Your task to perform on an android device: choose inbox layout in the gmail app Image 0: 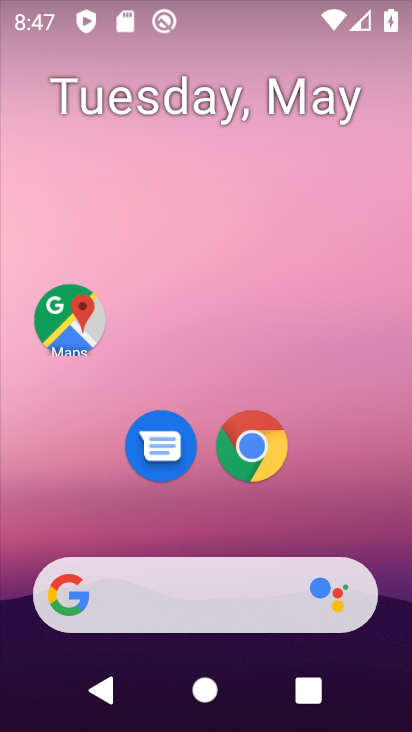
Step 0: drag from (385, 529) to (385, 208)
Your task to perform on an android device: choose inbox layout in the gmail app Image 1: 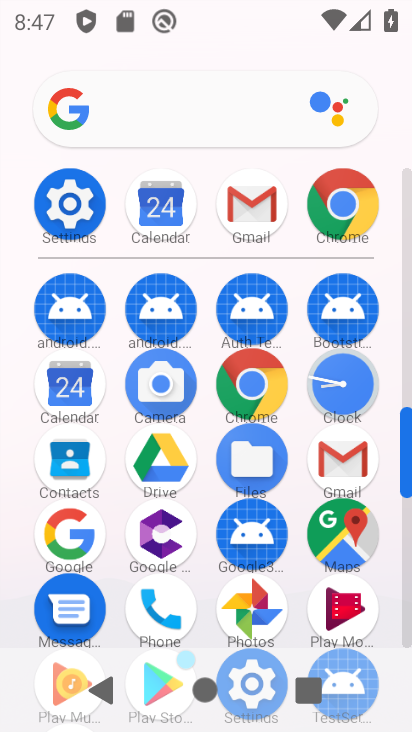
Step 1: click (358, 465)
Your task to perform on an android device: choose inbox layout in the gmail app Image 2: 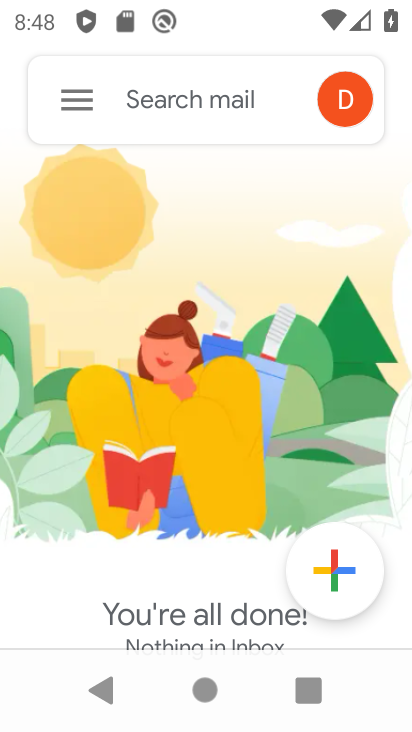
Step 2: click (75, 99)
Your task to perform on an android device: choose inbox layout in the gmail app Image 3: 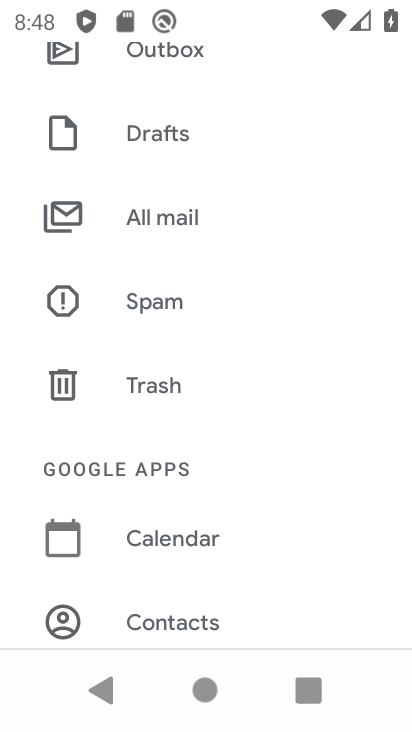
Step 3: drag from (279, 437) to (285, 352)
Your task to perform on an android device: choose inbox layout in the gmail app Image 4: 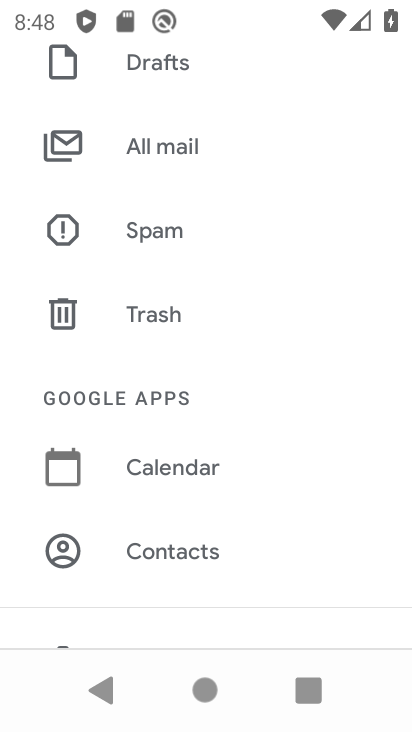
Step 4: drag from (323, 510) to (331, 402)
Your task to perform on an android device: choose inbox layout in the gmail app Image 5: 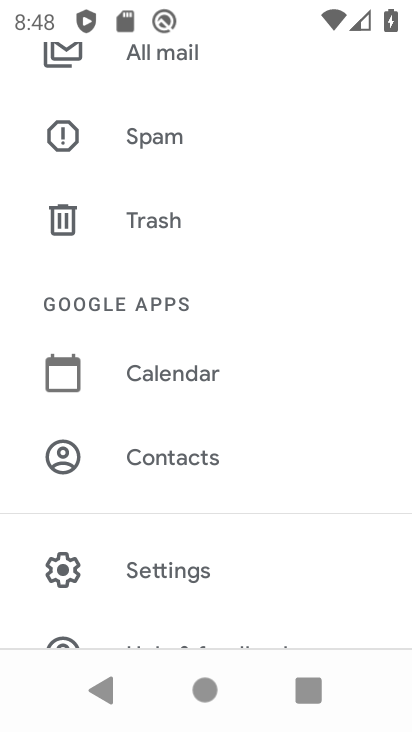
Step 5: drag from (316, 516) to (329, 398)
Your task to perform on an android device: choose inbox layout in the gmail app Image 6: 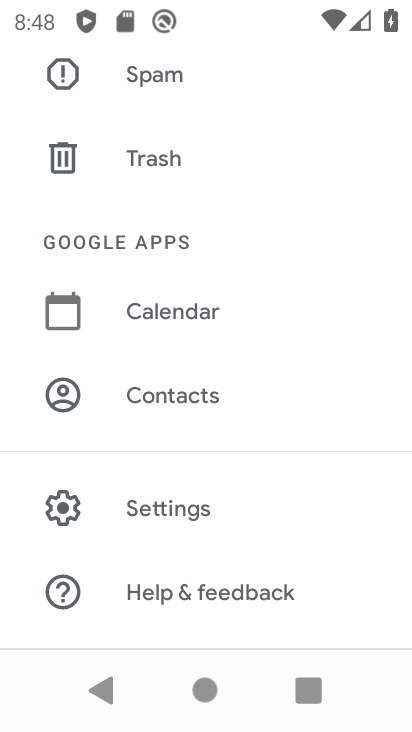
Step 6: drag from (326, 567) to (334, 405)
Your task to perform on an android device: choose inbox layout in the gmail app Image 7: 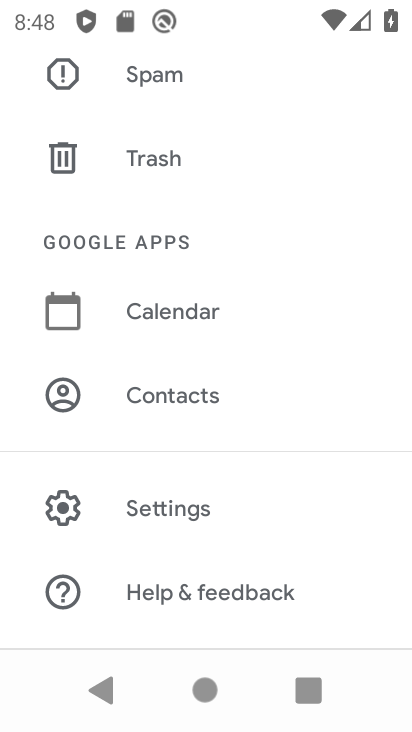
Step 7: click (210, 511)
Your task to perform on an android device: choose inbox layout in the gmail app Image 8: 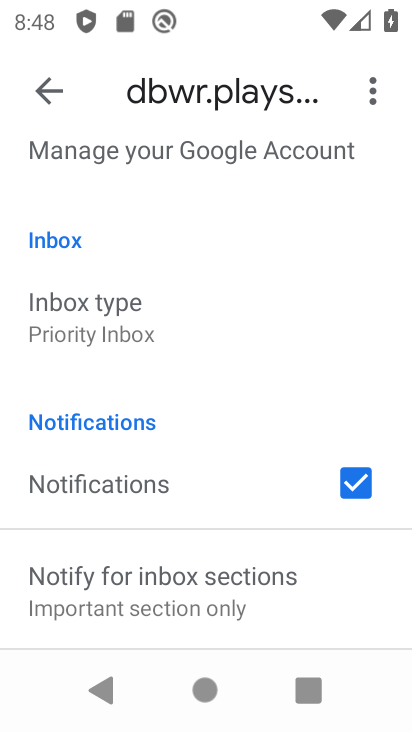
Step 8: drag from (301, 523) to (300, 437)
Your task to perform on an android device: choose inbox layout in the gmail app Image 9: 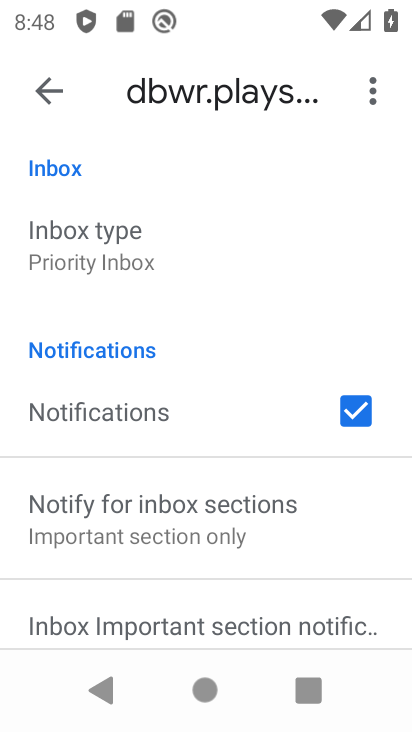
Step 9: drag from (291, 567) to (292, 501)
Your task to perform on an android device: choose inbox layout in the gmail app Image 10: 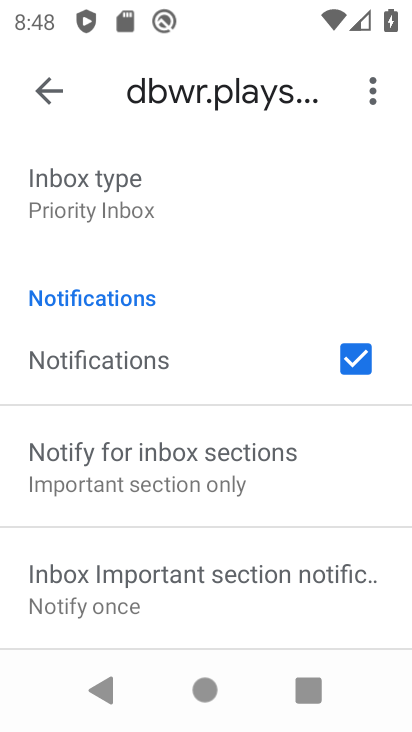
Step 10: drag from (289, 584) to (289, 482)
Your task to perform on an android device: choose inbox layout in the gmail app Image 11: 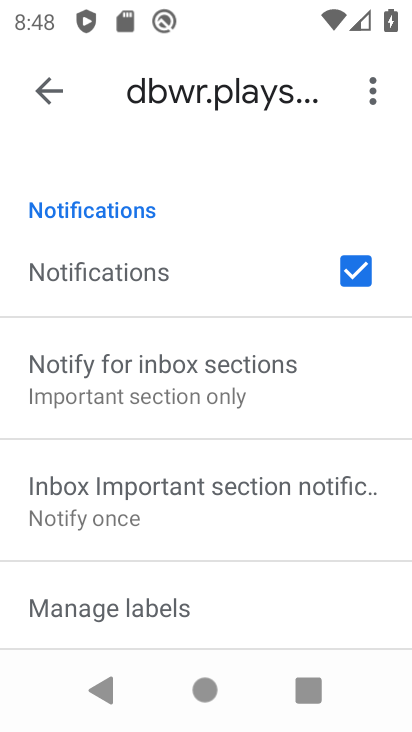
Step 11: drag from (319, 564) to (317, 430)
Your task to perform on an android device: choose inbox layout in the gmail app Image 12: 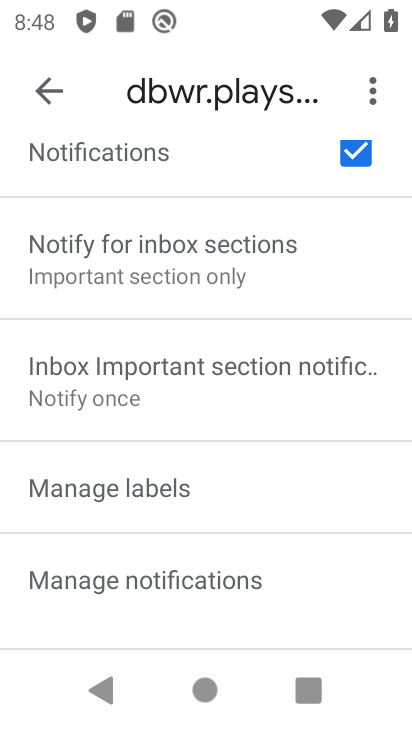
Step 12: drag from (308, 567) to (312, 450)
Your task to perform on an android device: choose inbox layout in the gmail app Image 13: 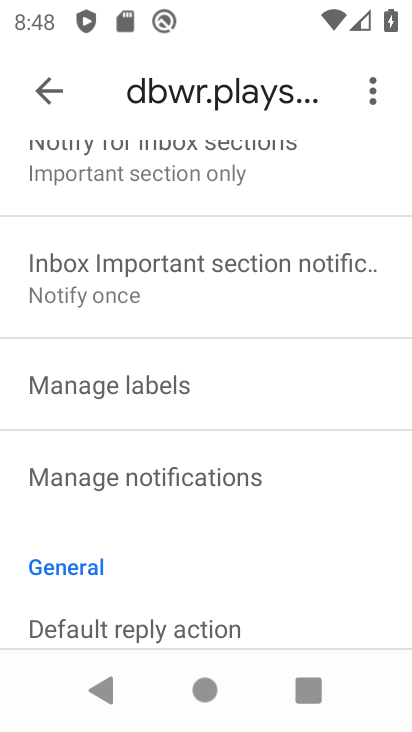
Step 13: drag from (305, 573) to (317, 444)
Your task to perform on an android device: choose inbox layout in the gmail app Image 14: 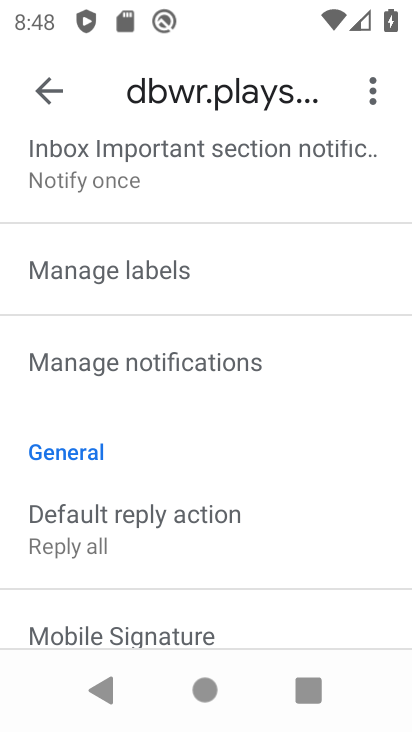
Step 14: drag from (329, 590) to (329, 476)
Your task to perform on an android device: choose inbox layout in the gmail app Image 15: 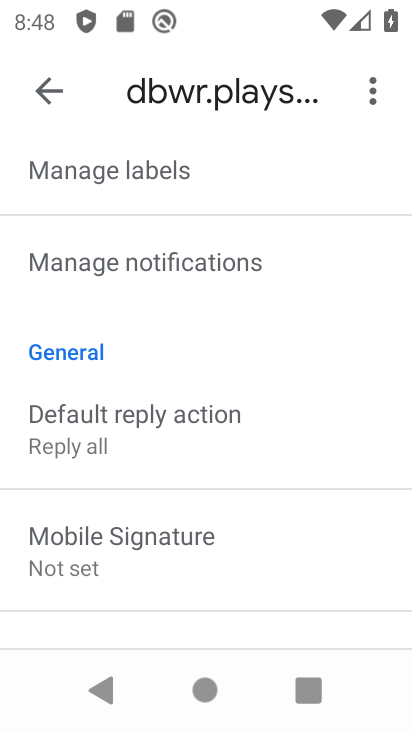
Step 15: drag from (344, 601) to (352, 487)
Your task to perform on an android device: choose inbox layout in the gmail app Image 16: 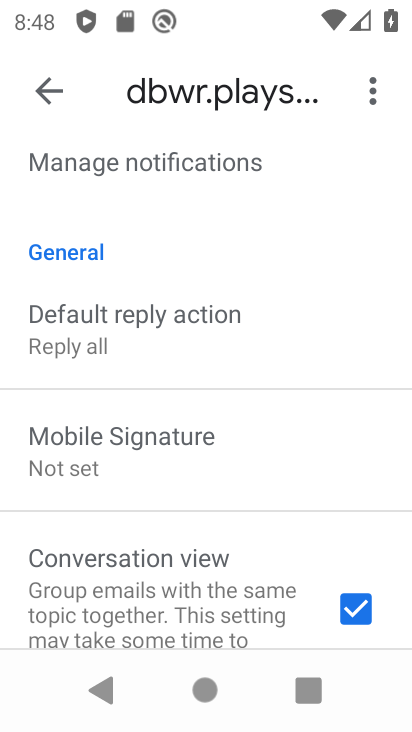
Step 16: drag from (344, 270) to (341, 390)
Your task to perform on an android device: choose inbox layout in the gmail app Image 17: 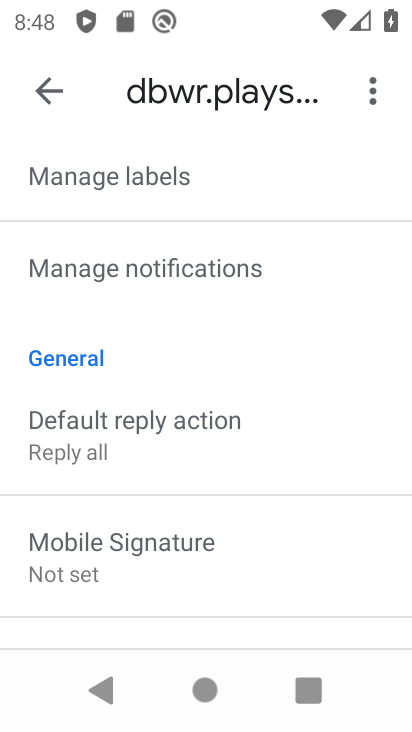
Step 17: drag from (336, 280) to (334, 402)
Your task to perform on an android device: choose inbox layout in the gmail app Image 18: 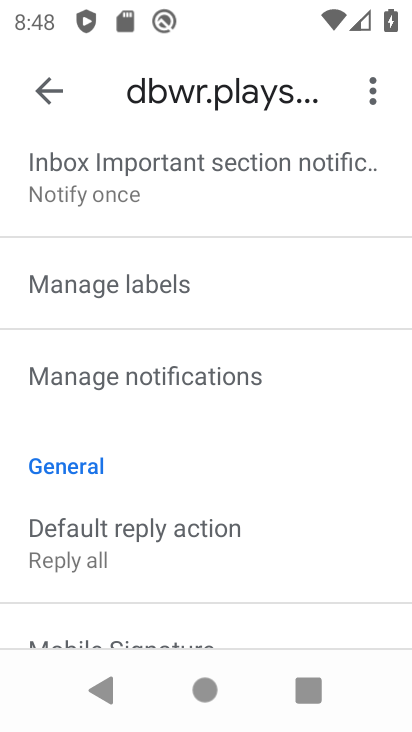
Step 18: drag from (339, 294) to (339, 413)
Your task to perform on an android device: choose inbox layout in the gmail app Image 19: 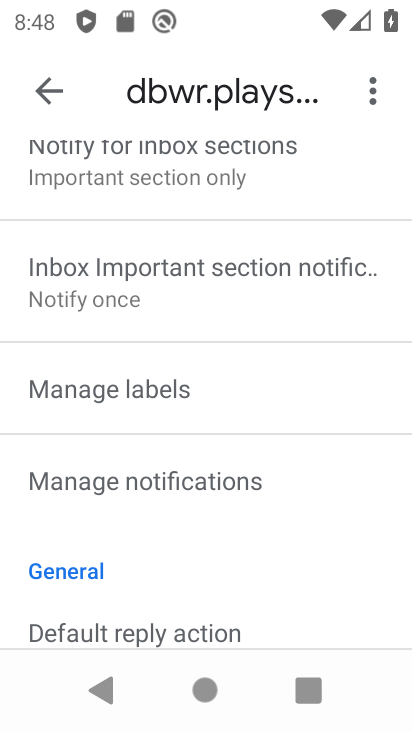
Step 19: drag from (330, 271) to (310, 397)
Your task to perform on an android device: choose inbox layout in the gmail app Image 20: 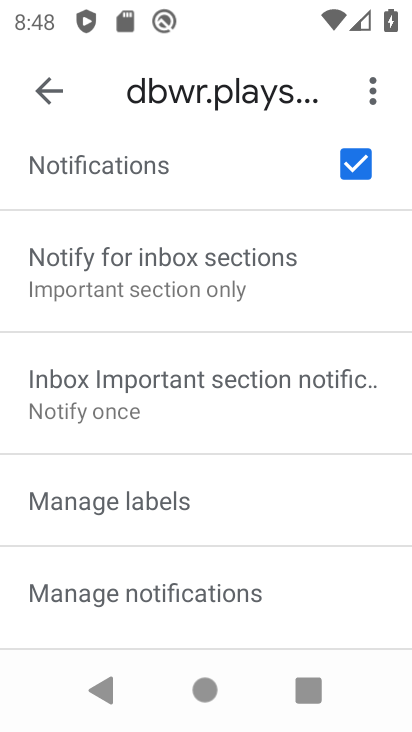
Step 20: drag from (309, 252) to (303, 365)
Your task to perform on an android device: choose inbox layout in the gmail app Image 21: 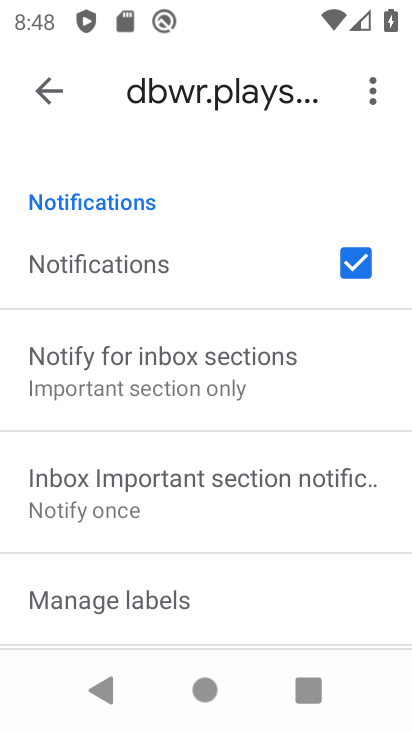
Step 21: drag from (283, 217) to (269, 349)
Your task to perform on an android device: choose inbox layout in the gmail app Image 22: 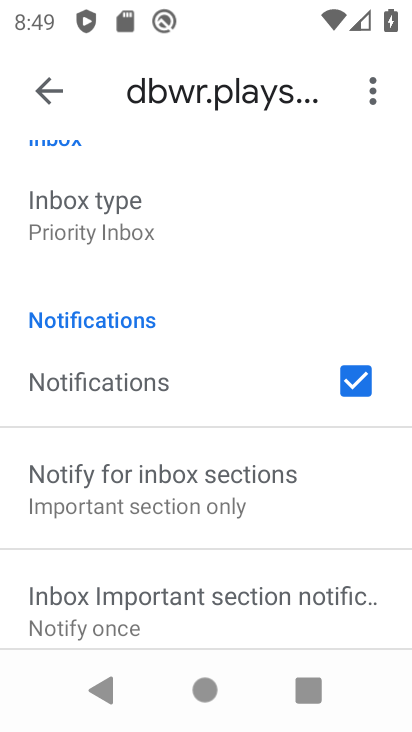
Step 22: drag from (262, 196) to (259, 303)
Your task to perform on an android device: choose inbox layout in the gmail app Image 23: 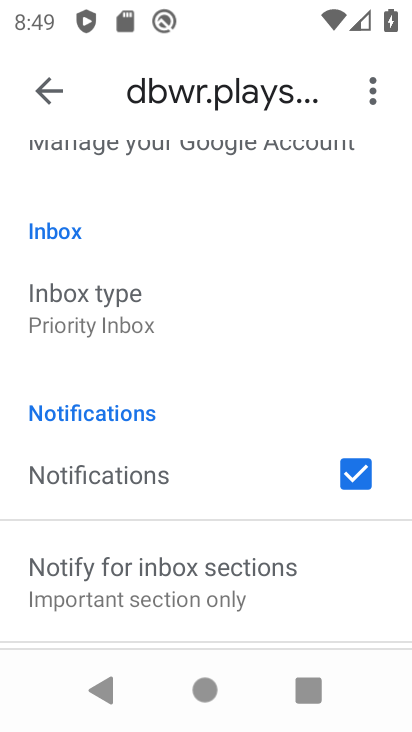
Step 23: click (149, 333)
Your task to perform on an android device: choose inbox layout in the gmail app Image 24: 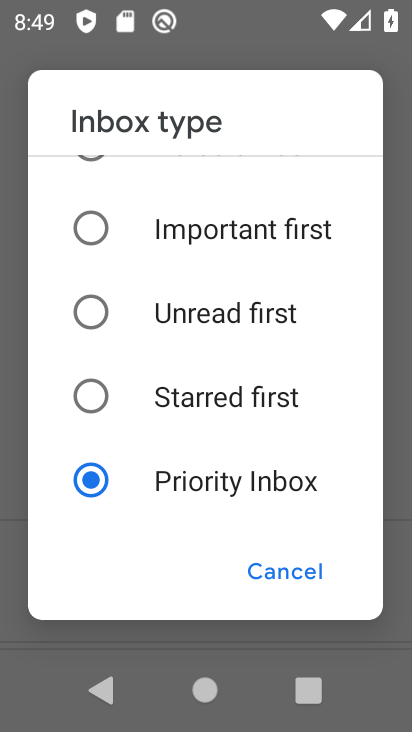
Step 24: click (103, 391)
Your task to perform on an android device: choose inbox layout in the gmail app Image 25: 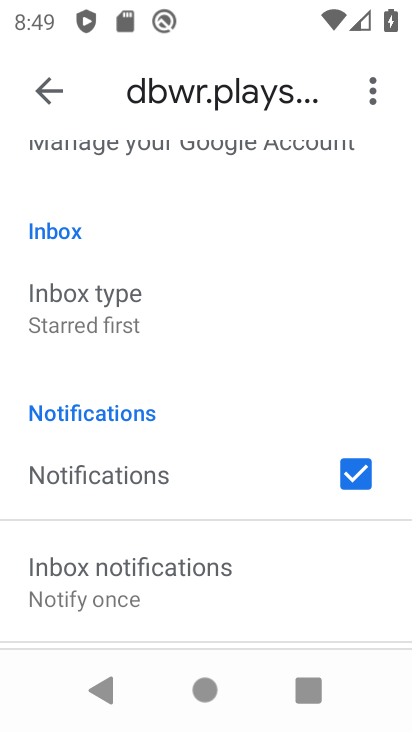
Step 25: task complete